Your task to perform on an android device: see creations saved in the google photos Image 0: 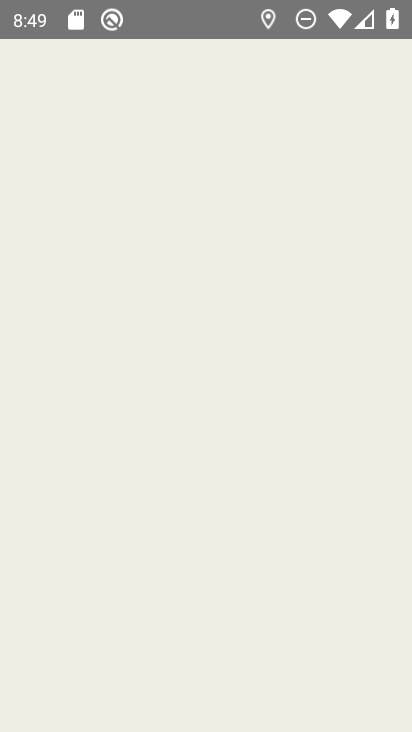
Step 0: click (259, 548)
Your task to perform on an android device: see creations saved in the google photos Image 1: 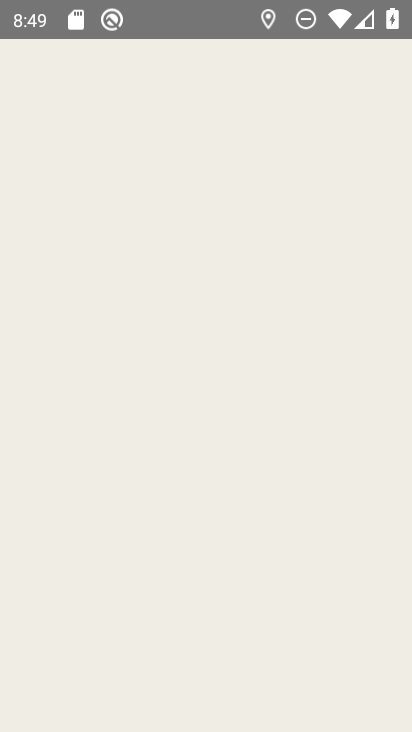
Step 1: press home button
Your task to perform on an android device: see creations saved in the google photos Image 2: 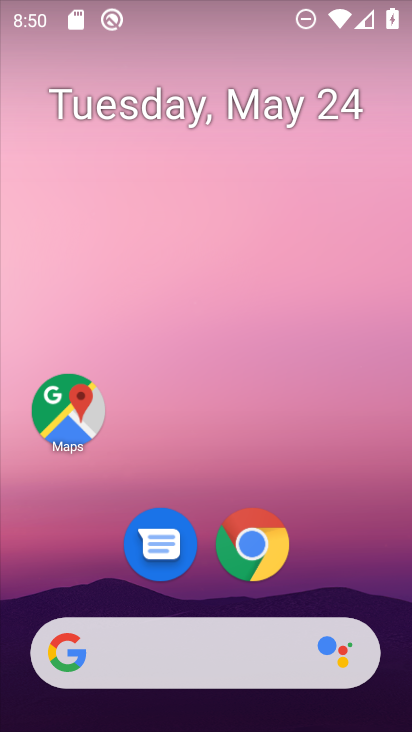
Step 2: drag from (348, 588) to (278, 224)
Your task to perform on an android device: see creations saved in the google photos Image 3: 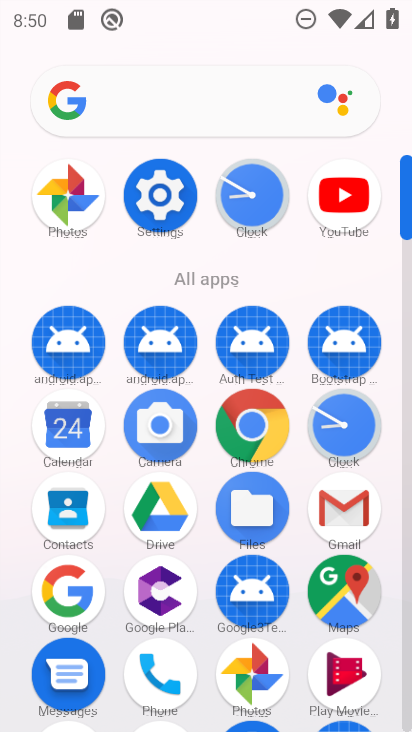
Step 3: click (80, 208)
Your task to perform on an android device: see creations saved in the google photos Image 4: 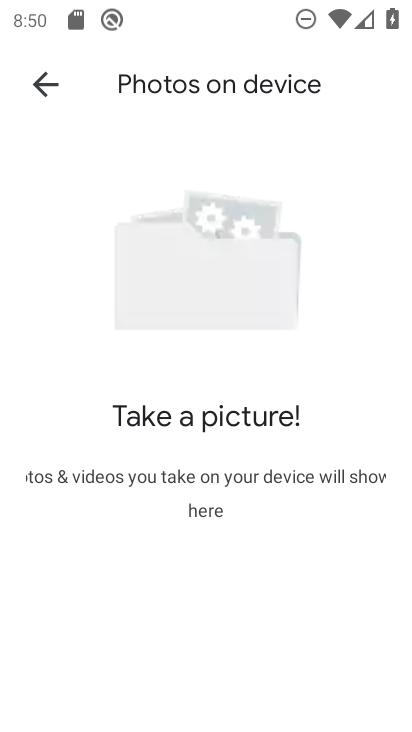
Step 4: click (46, 91)
Your task to perform on an android device: see creations saved in the google photos Image 5: 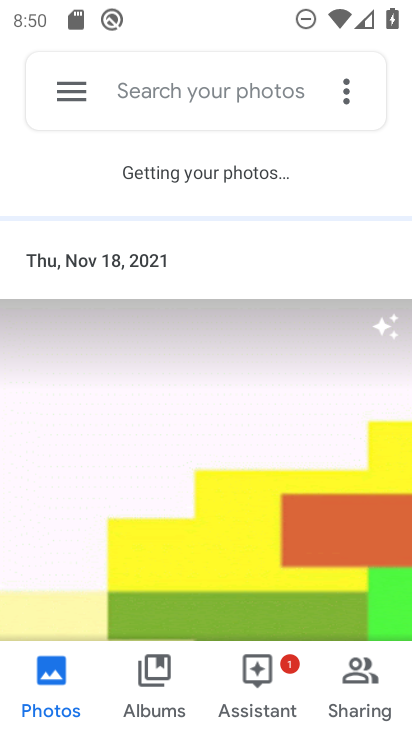
Step 5: click (250, 85)
Your task to perform on an android device: see creations saved in the google photos Image 6: 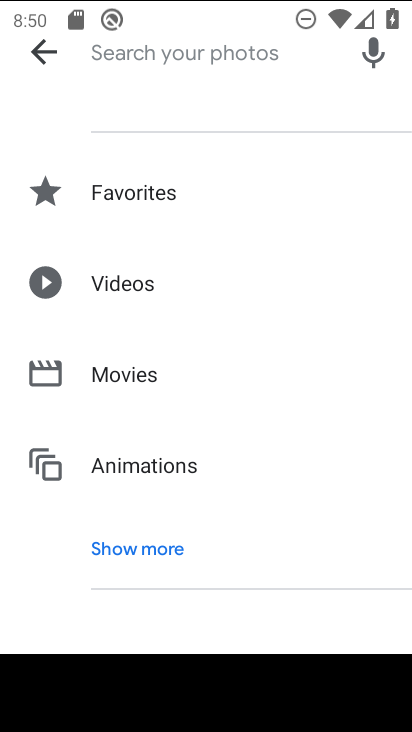
Step 6: click (133, 551)
Your task to perform on an android device: see creations saved in the google photos Image 7: 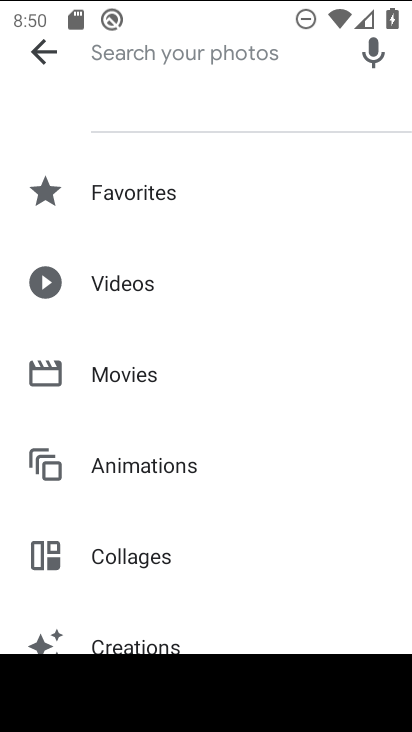
Step 7: drag from (172, 611) to (159, 241)
Your task to perform on an android device: see creations saved in the google photos Image 8: 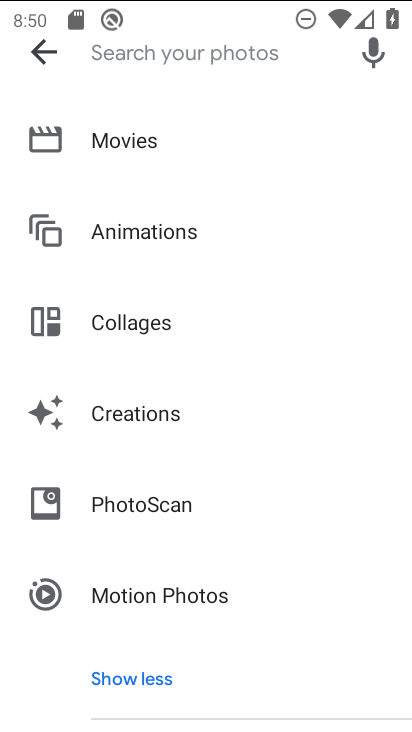
Step 8: click (154, 415)
Your task to perform on an android device: see creations saved in the google photos Image 9: 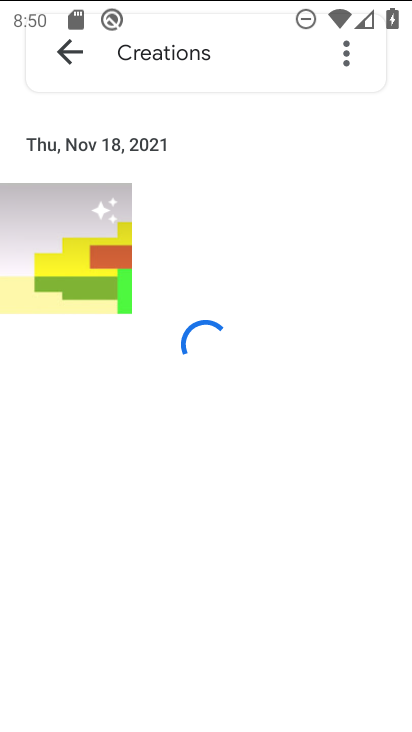
Step 9: task complete